Your task to perform on an android device: View the shopping cart on walmart. Add "logitech g pro" to the cart on walmart, then select checkout. Image 0: 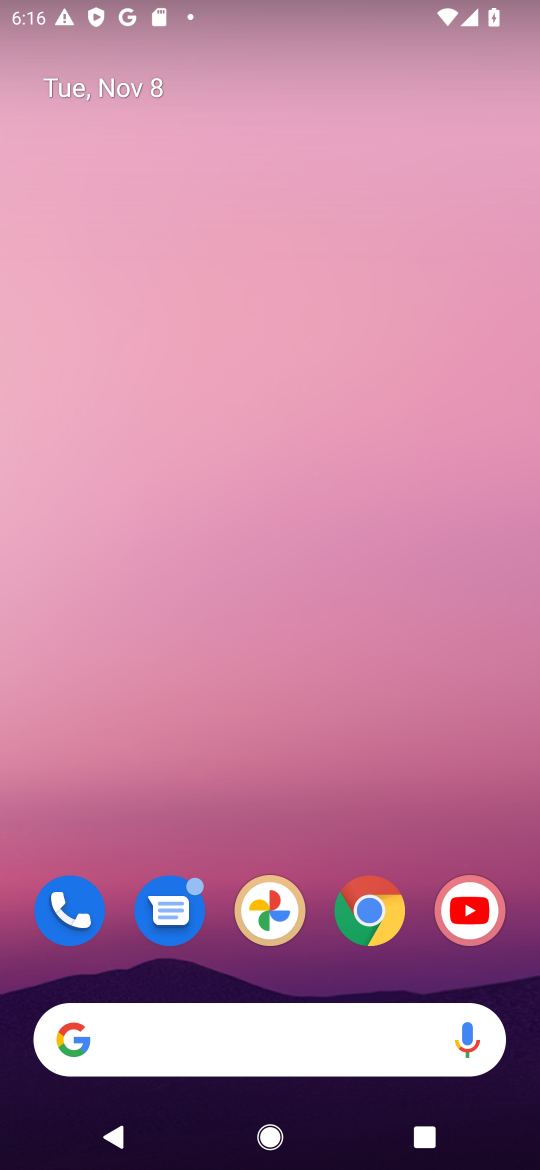
Step 0: click (370, 895)
Your task to perform on an android device: View the shopping cart on walmart. Add "logitech g pro" to the cart on walmart, then select checkout. Image 1: 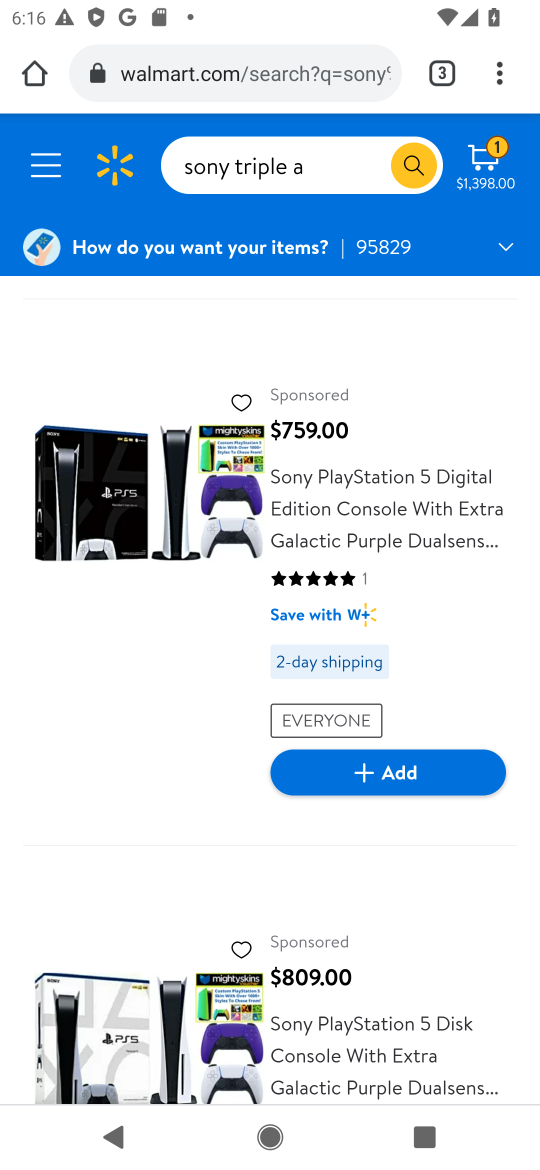
Step 1: click (246, 163)
Your task to perform on an android device: View the shopping cart on walmart. Add "logitech g pro" to the cart on walmart, then select checkout. Image 2: 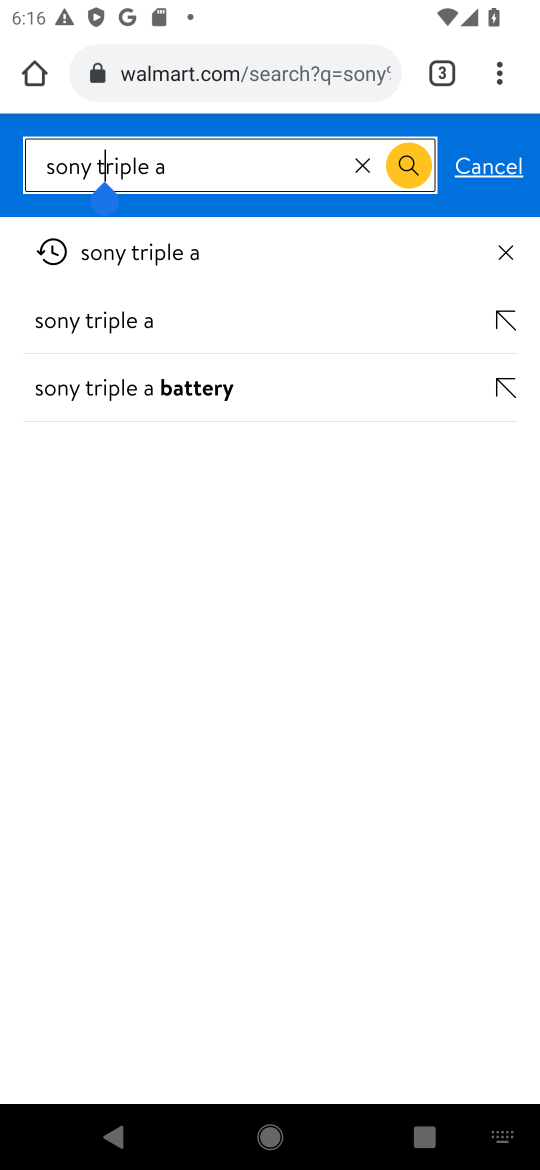
Step 2: click (354, 164)
Your task to perform on an android device: View the shopping cart on walmart. Add "logitech g pro" to the cart on walmart, then select checkout. Image 3: 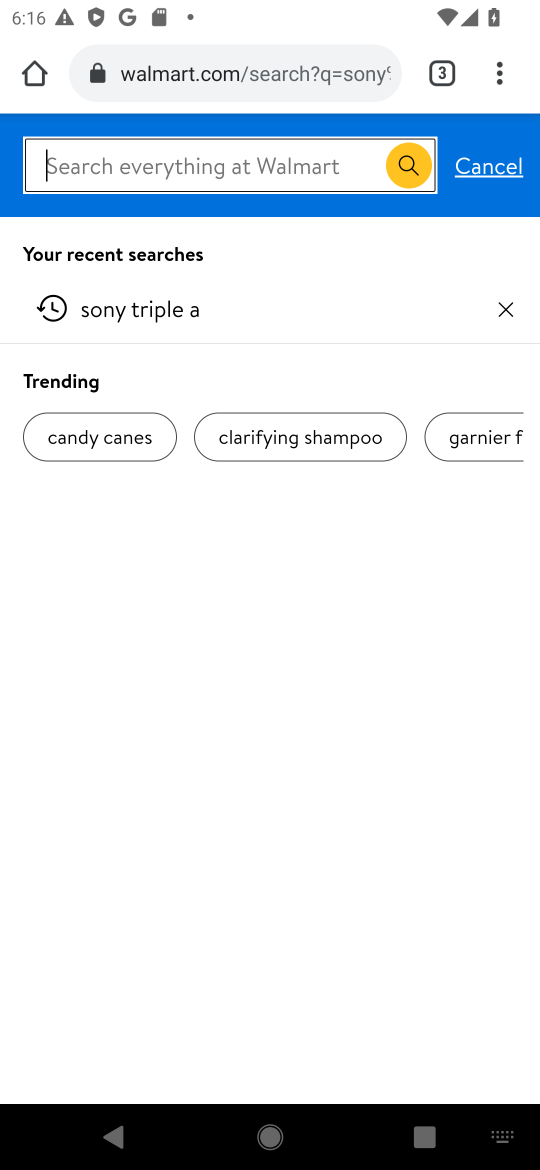
Step 3: type "logitech g pro"
Your task to perform on an android device: View the shopping cart on walmart. Add "logitech g pro" to the cart on walmart, then select checkout. Image 4: 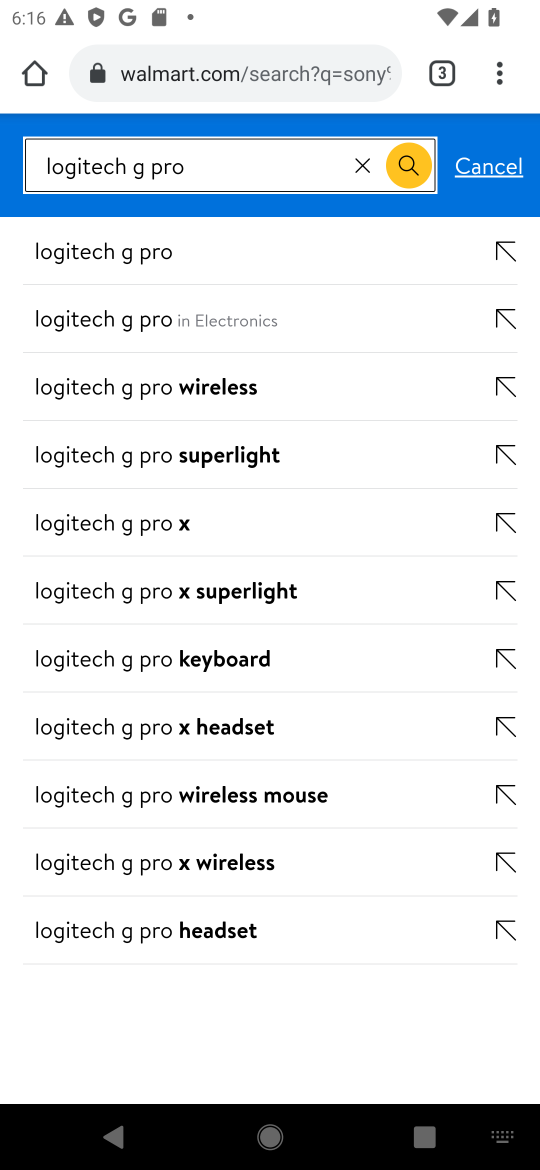
Step 4: click (173, 322)
Your task to perform on an android device: View the shopping cart on walmart. Add "logitech g pro" to the cart on walmart, then select checkout. Image 5: 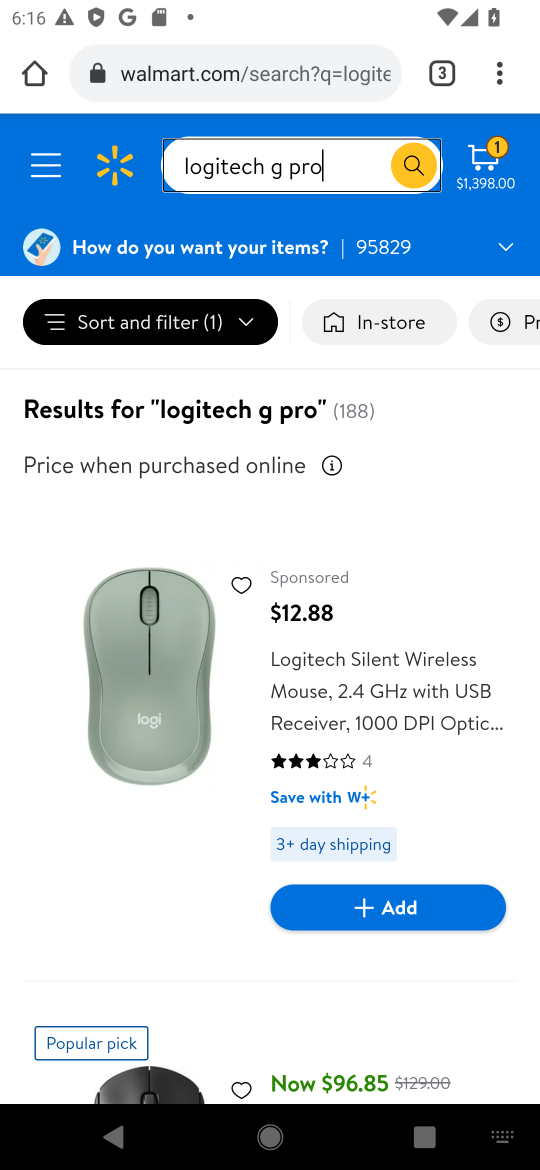
Step 5: drag from (340, 1043) to (388, 474)
Your task to perform on an android device: View the shopping cart on walmart. Add "logitech g pro" to the cart on walmart, then select checkout. Image 6: 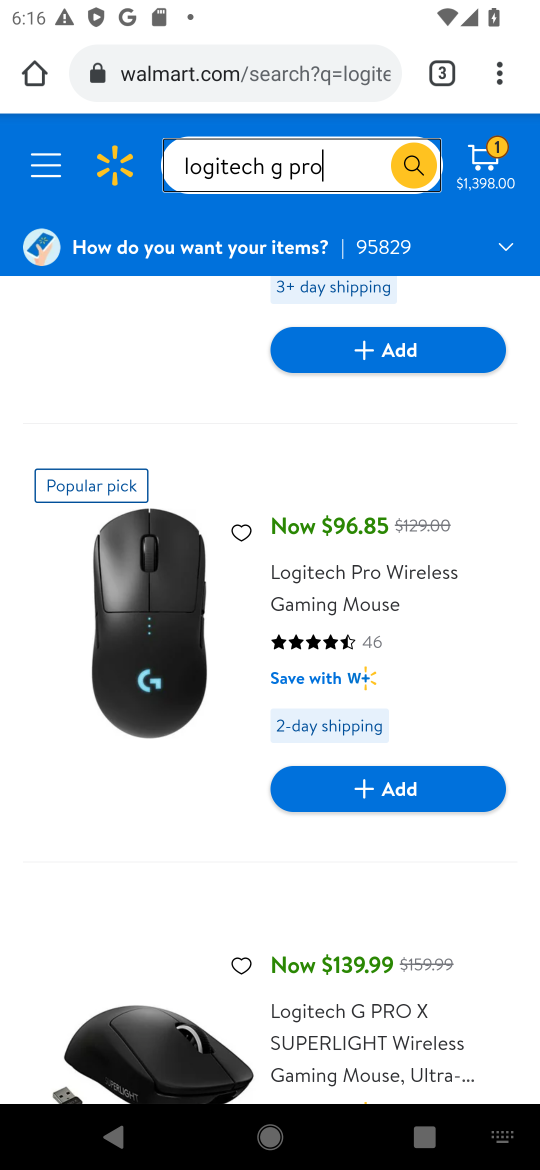
Step 6: click (390, 787)
Your task to perform on an android device: View the shopping cart on walmart. Add "logitech g pro" to the cart on walmart, then select checkout. Image 7: 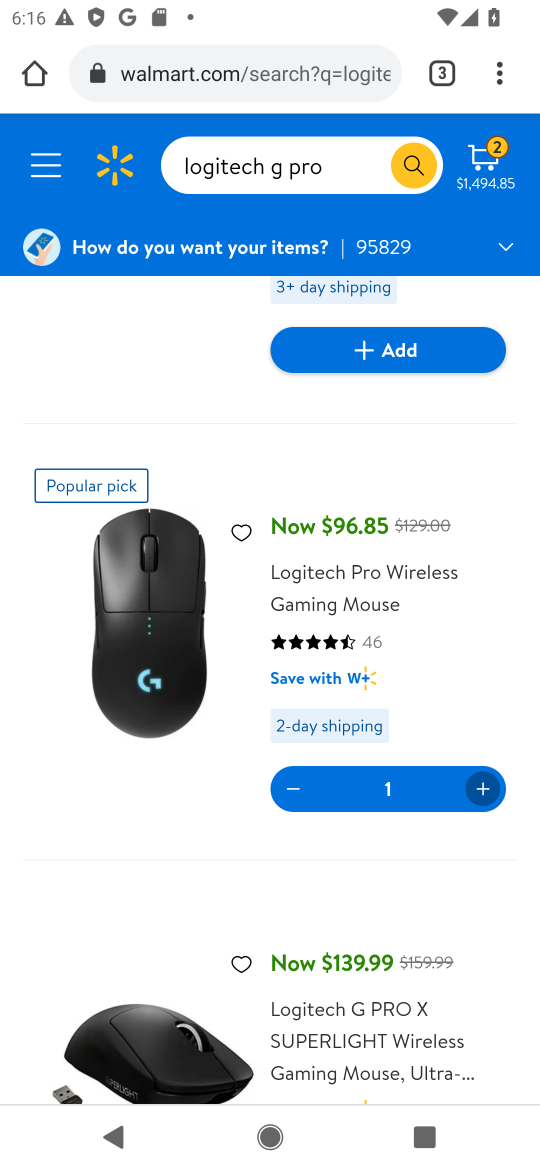
Step 7: task complete